Your task to perform on an android device: Open maps Image 0: 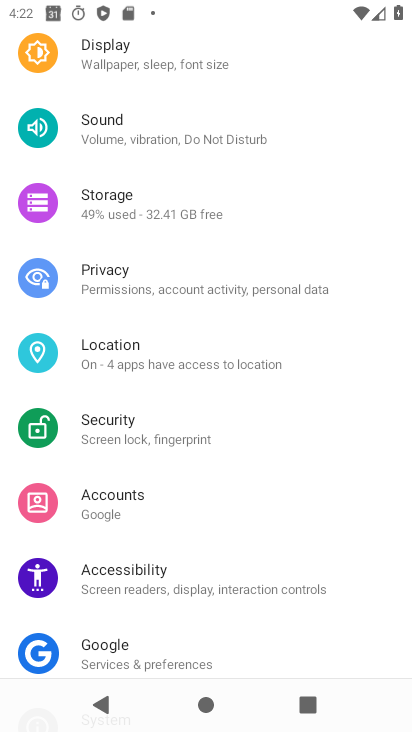
Step 0: press home button
Your task to perform on an android device: Open maps Image 1: 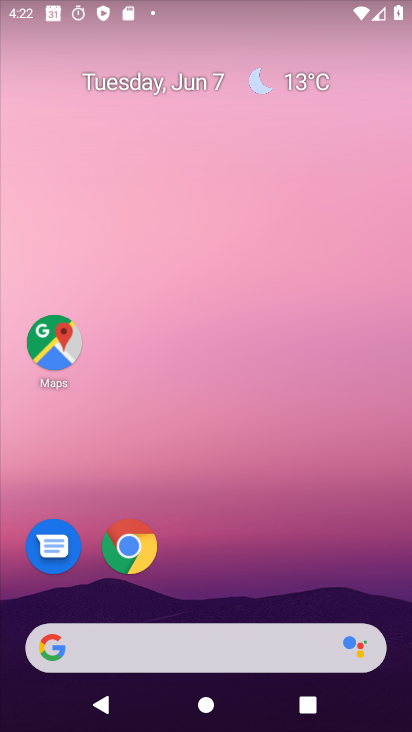
Step 1: click (24, 312)
Your task to perform on an android device: Open maps Image 2: 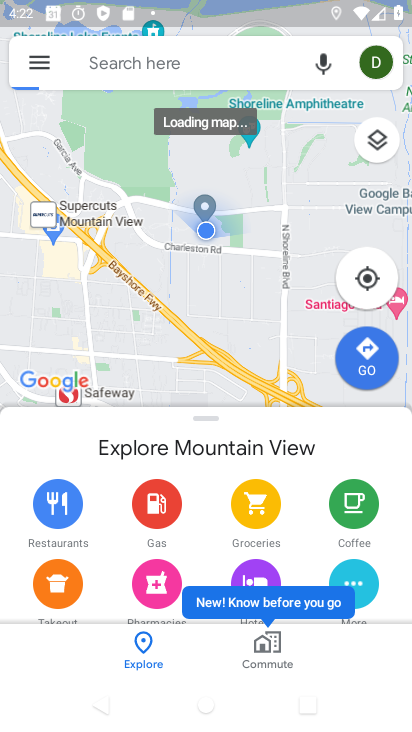
Step 2: task complete